Your task to perform on an android device: Open settings on Google Maps Image 0: 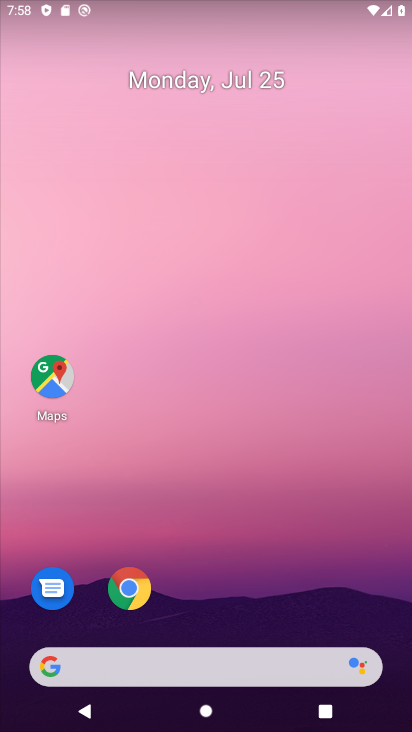
Step 0: click (53, 379)
Your task to perform on an android device: Open settings on Google Maps Image 1: 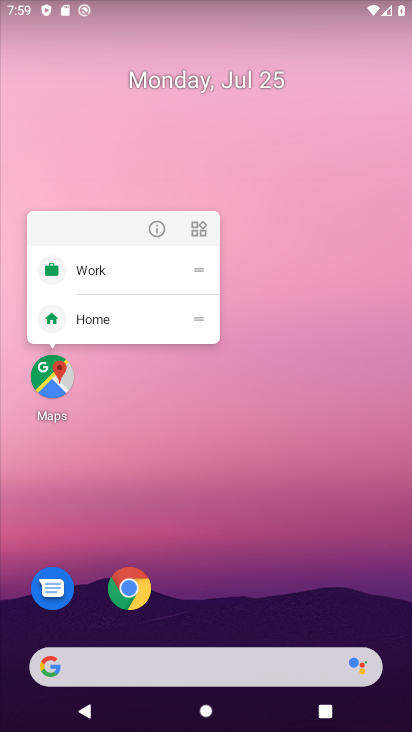
Step 1: click (53, 379)
Your task to perform on an android device: Open settings on Google Maps Image 2: 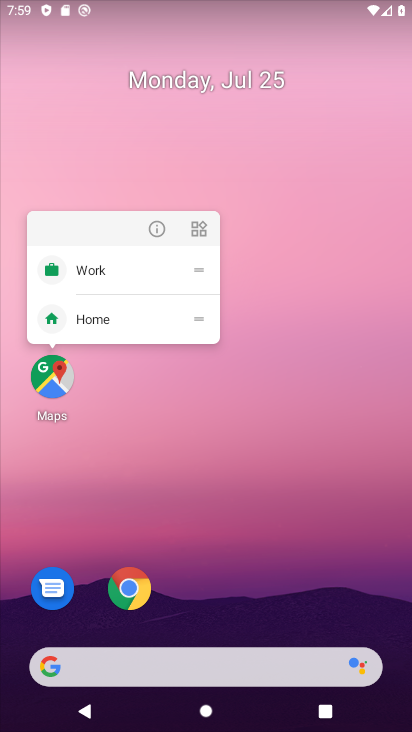
Step 2: click (53, 379)
Your task to perform on an android device: Open settings on Google Maps Image 3: 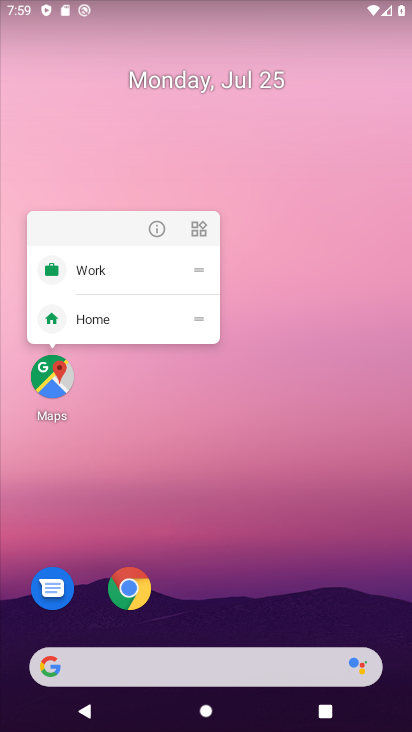
Step 3: click (50, 400)
Your task to perform on an android device: Open settings on Google Maps Image 4: 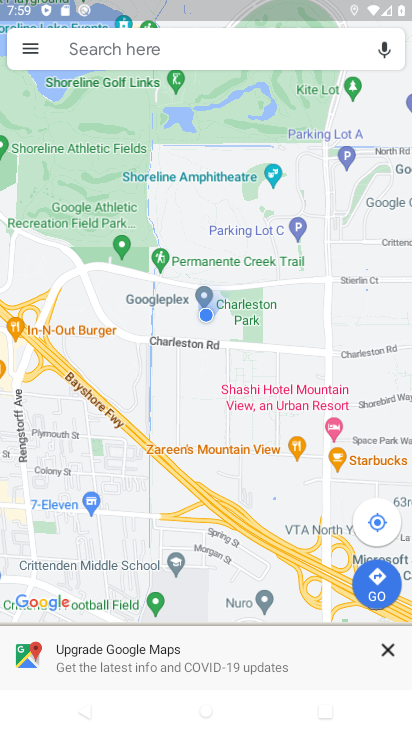
Step 4: click (26, 45)
Your task to perform on an android device: Open settings on Google Maps Image 5: 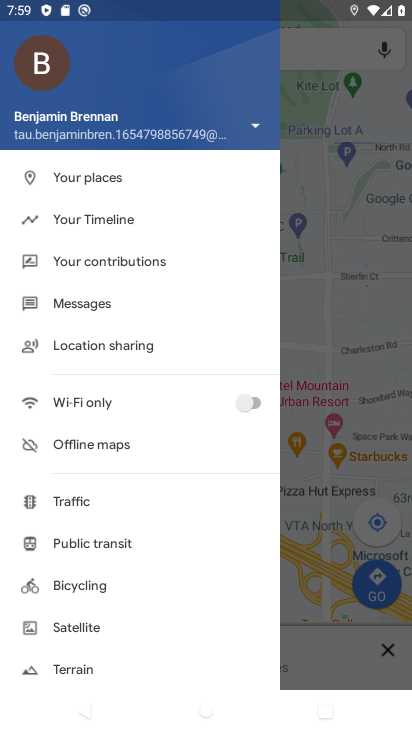
Step 5: drag from (86, 676) to (104, 366)
Your task to perform on an android device: Open settings on Google Maps Image 6: 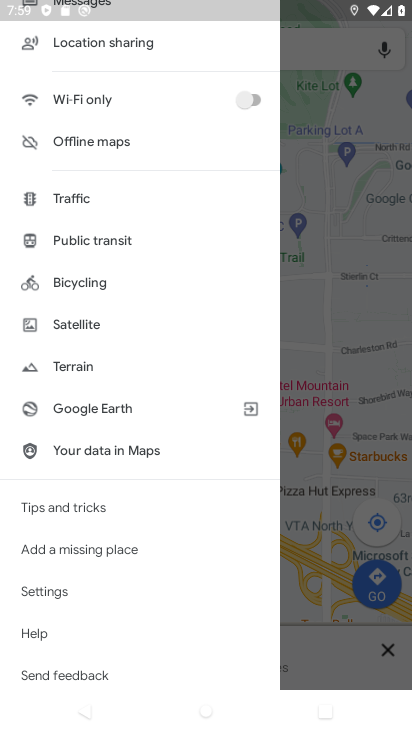
Step 6: click (41, 596)
Your task to perform on an android device: Open settings on Google Maps Image 7: 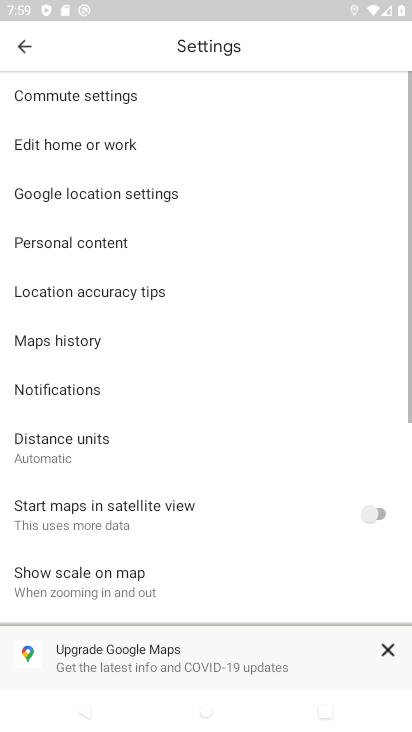
Step 7: task complete